Your task to perform on an android device: toggle wifi Image 0: 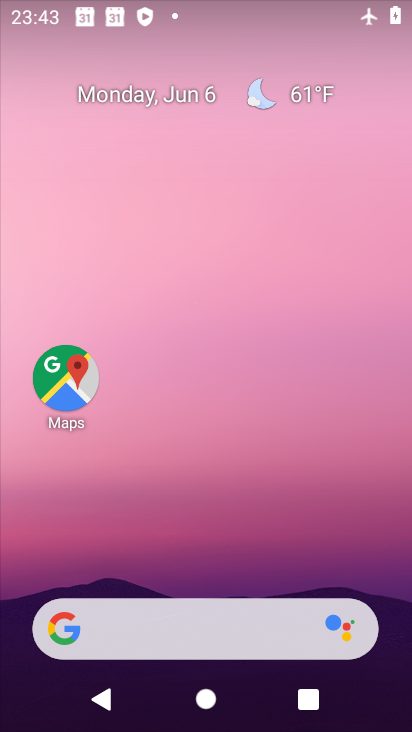
Step 0: drag from (234, 310) to (227, 119)
Your task to perform on an android device: toggle wifi Image 1: 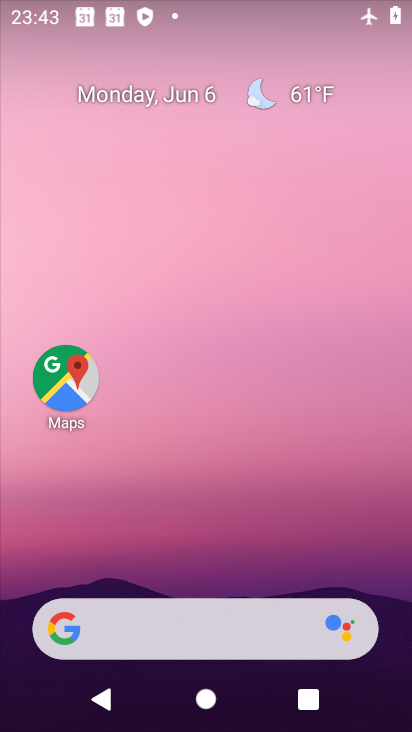
Step 1: drag from (226, 329) to (264, 91)
Your task to perform on an android device: toggle wifi Image 2: 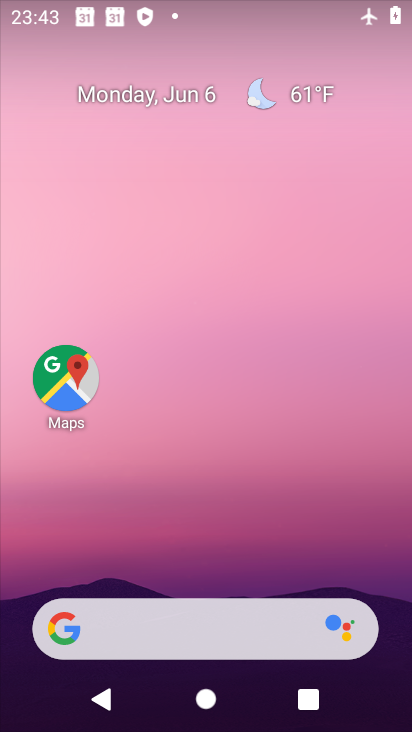
Step 2: drag from (248, 562) to (255, 17)
Your task to perform on an android device: toggle wifi Image 3: 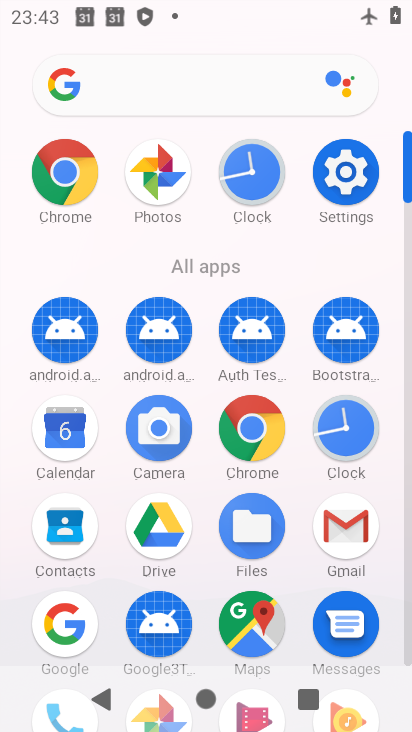
Step 3: click (347, 161)
Your task to perform on an android device: toggle wifi Image 4: 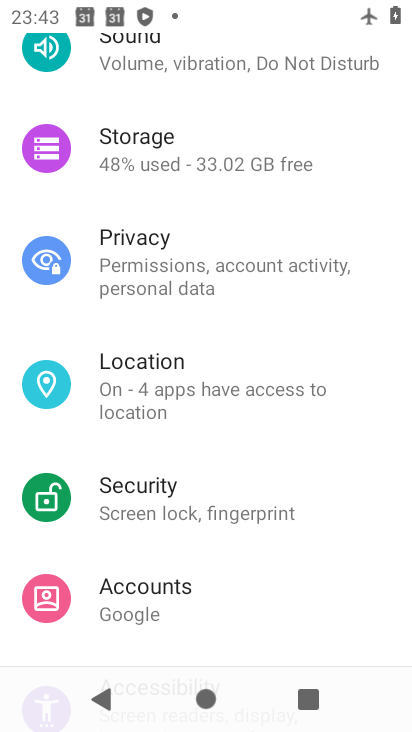
Step 4: drag from (170, 190) to (244, 603)
Your task to perform on an android device: toggle wifi Image 5: 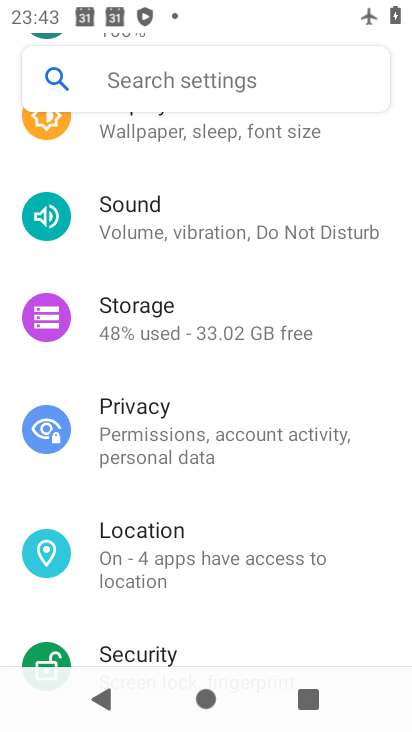
Step 5: drag from (223, 361) to (294, 630)
Your task to perform on an android device: toggle wifi Image 6: 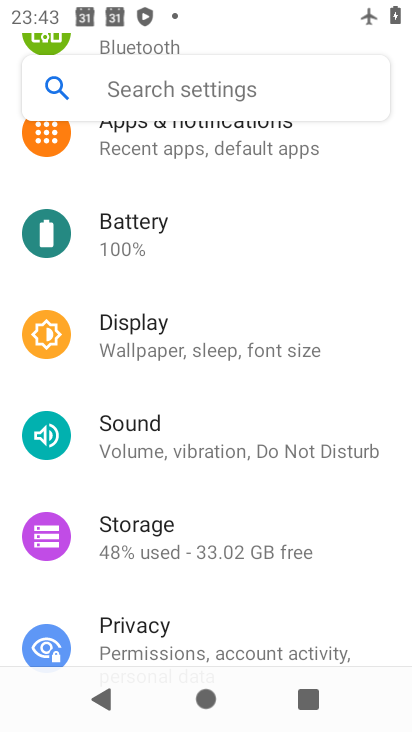
Step 6: drag from (191, 195) to (231, 447)
Your task to perform on an android device: toggle wifi Image 7: 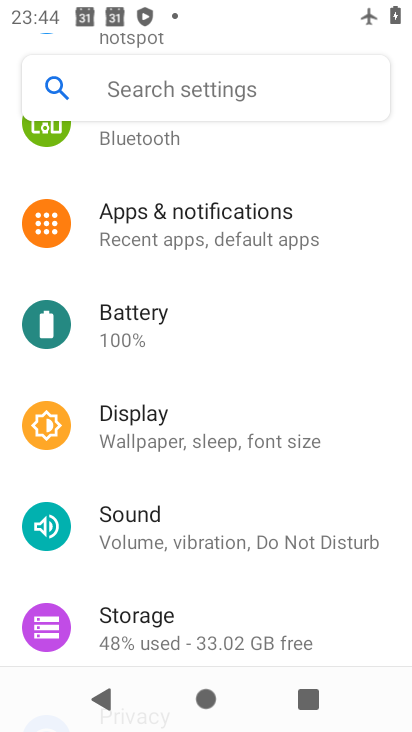
Step 7: drag from (224, 202) to (311, 731)
Your task to perform on an android device: toggle wifi Image 8: 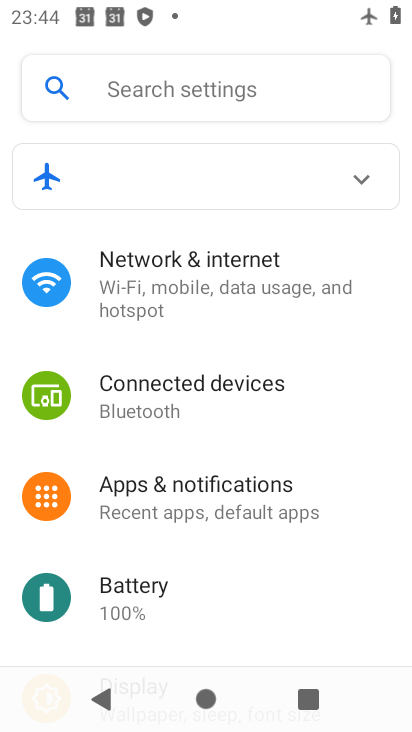
Step 8: click (204, 261)
Your task to perform on an android device: toggle wifi Image 9: 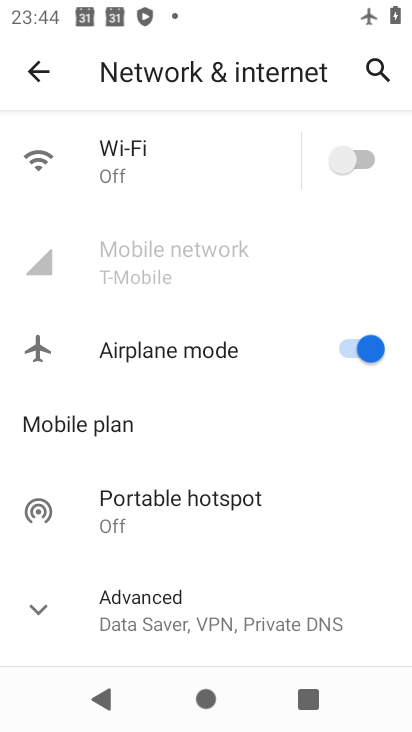
Step 9: click (346, 163)
Your task to perform on an android device: toggle wifi Image 10: 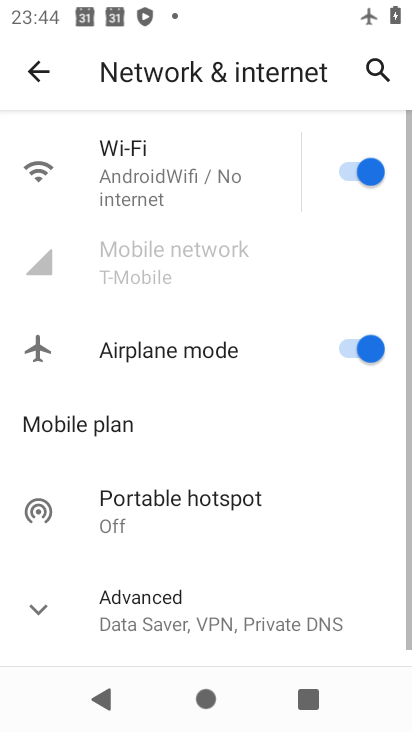
Step 10: task complete